Your task to perform on an android device: Open Wikipedia Image 0: 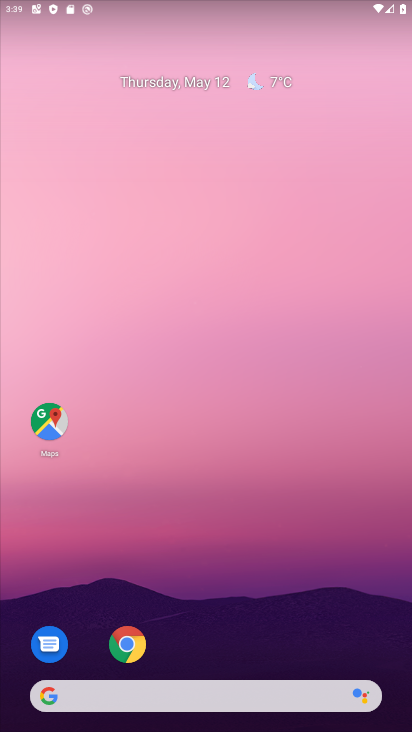
Step 0: drag from (211, 662) to (210, 106)
Your task to perform on an android device: Open Wikipedia Image 1: 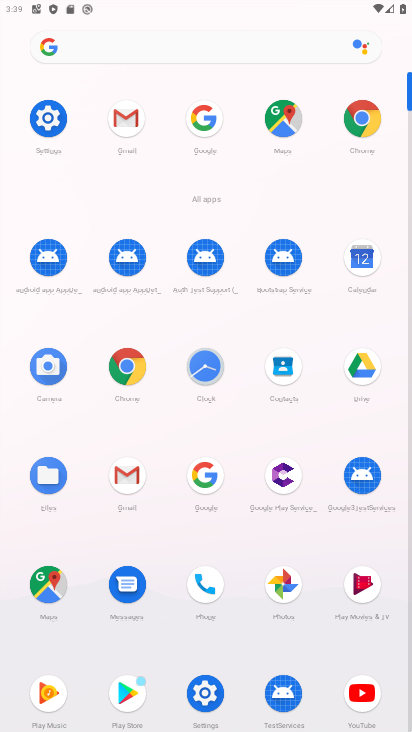
Step 1: click (124, 358)
Your task to perform on an android device: Open Wikipedia Image 2: 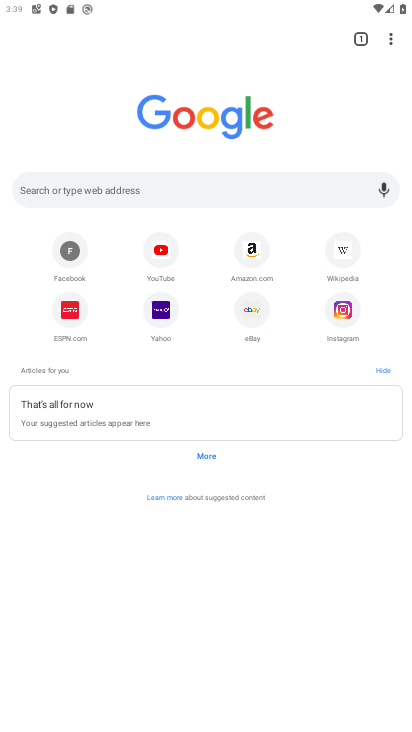
Step 2: click (342, 243)
Your task to perform on an android device: Open Wikipedia Image 3: 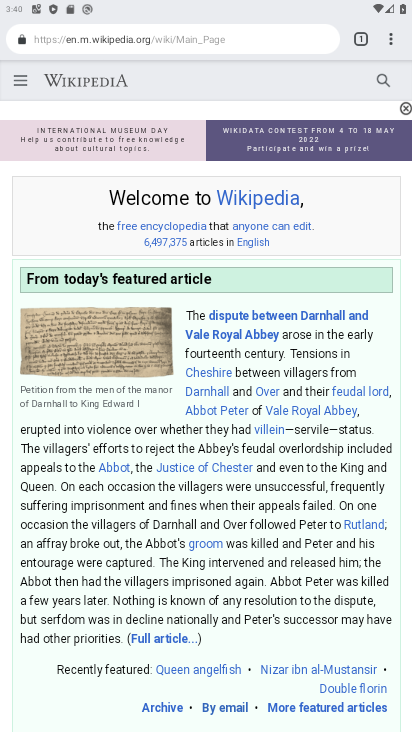
Step 3: task complete